Your task to perform on an android device: Do I have any events tomorrow? Image 0: 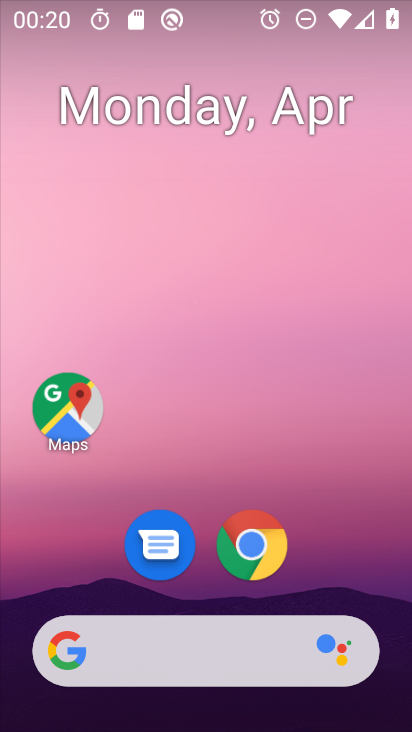
Step 0: drag from (347, 447) to (347, 222)
Your task to perform on an android device: Do I have any events tomorrow? Image 1: 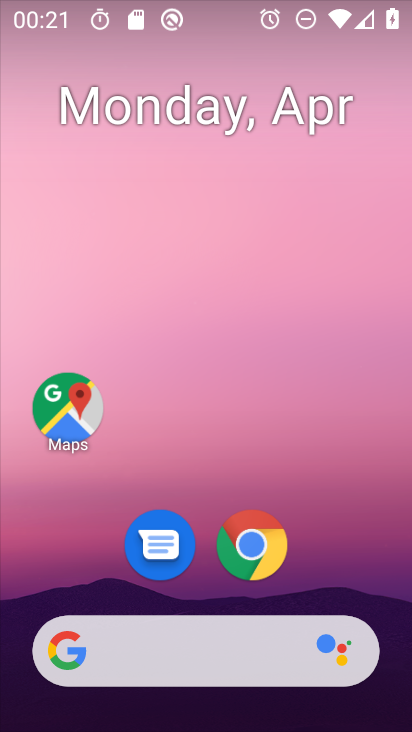
Step 1: drag from (335, 519) to (327, 208)
Your task to perform on an android device: Do I have any events tomorrow? Image 2: 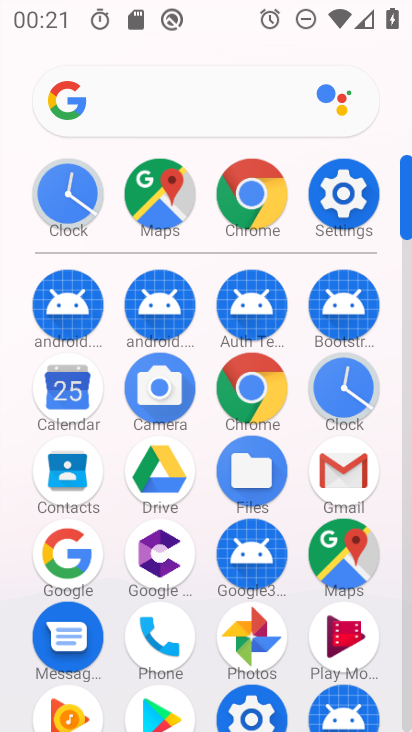
Step 2: click (63, 384)
Your task to perform on an android device: Do I have any events tomorrow? Image 3: 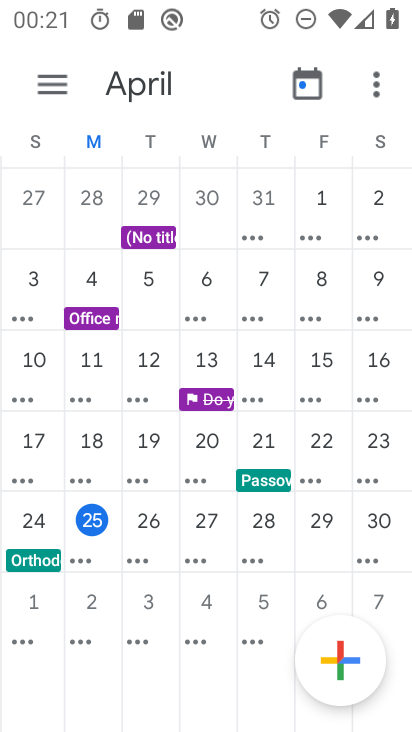
Step 3: click (140, 517)
Your task to perform on an android device: Do I have any events tomorrow? Image 4: 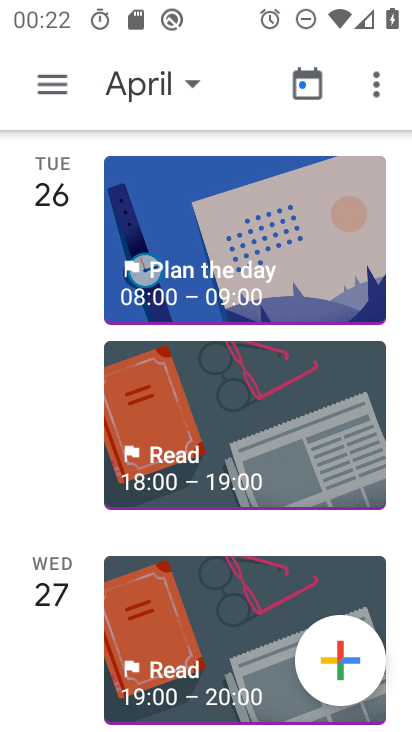
Step 4: task complete